Your task to perform on an android device: empty trash in the gmail app Image 0: 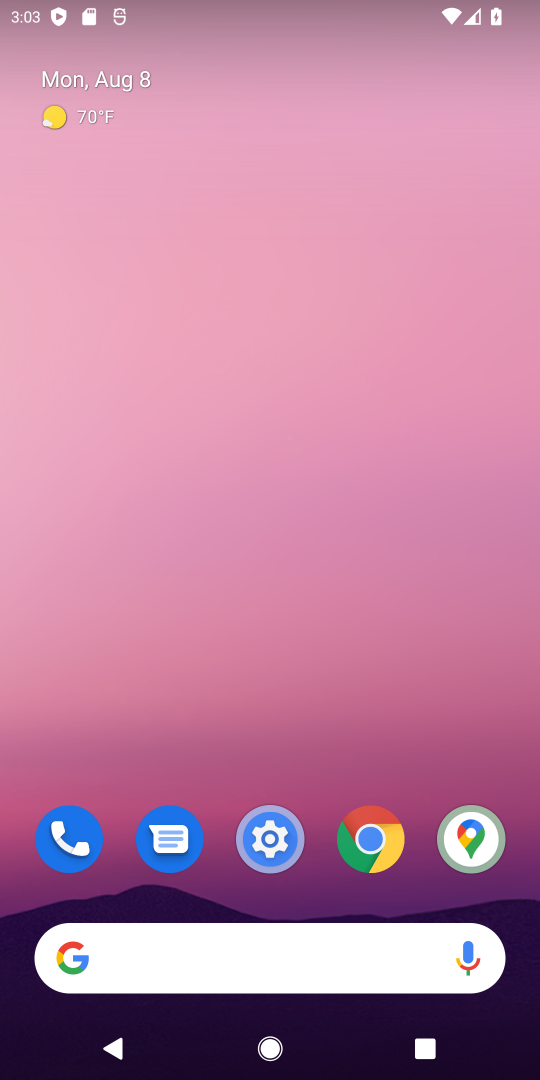
Step 0: press home button
Your task to perform on an android device: empty trash in the gmail app Image 1: 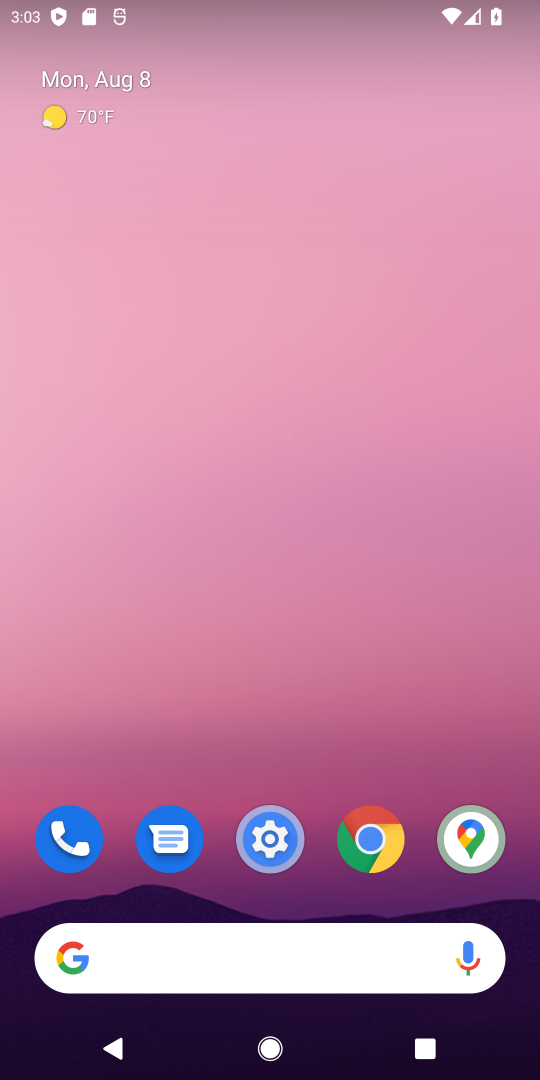
Step 1: drag from (392, 602) to (425, 167)
Your task to perform on an android device: empty trash in the gmail app Image 2: 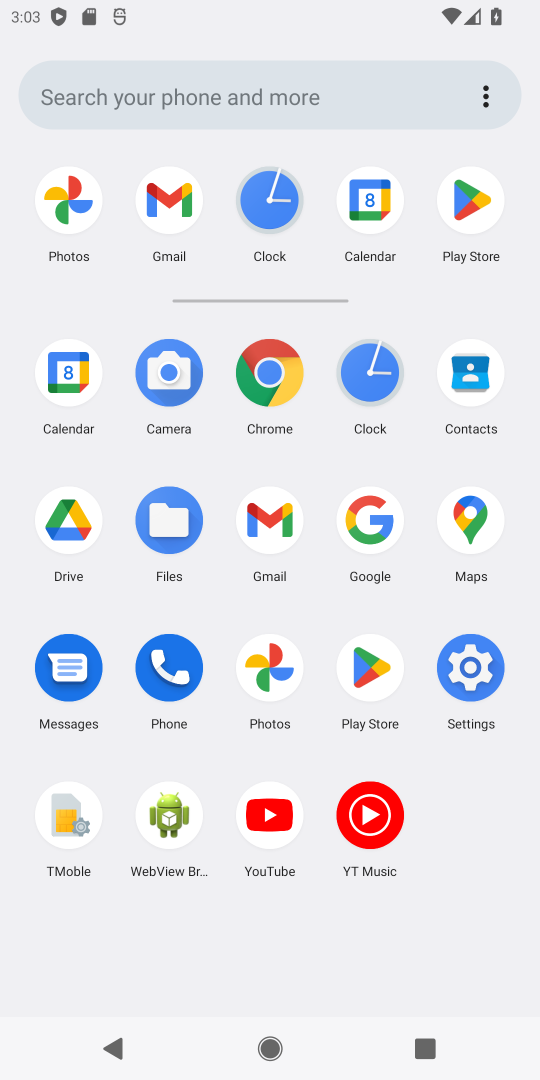
Step 2: click (259, 527)
Your task to perform on an android device: empty trash in the gmail app Image 3: 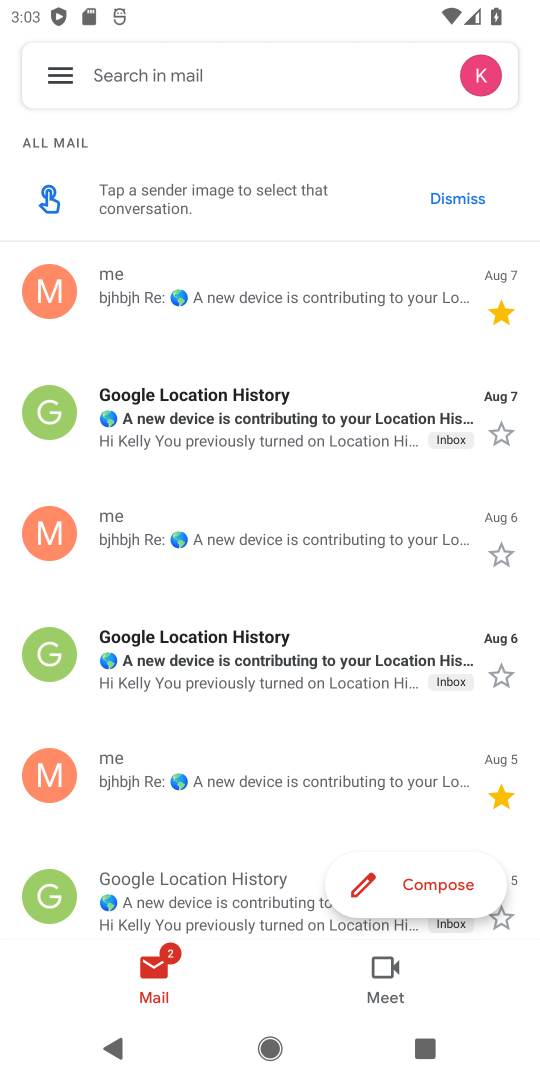
Step 3: click (59, 69)
Your task to perform on an android device: empty trash in the gmail app Image 4: 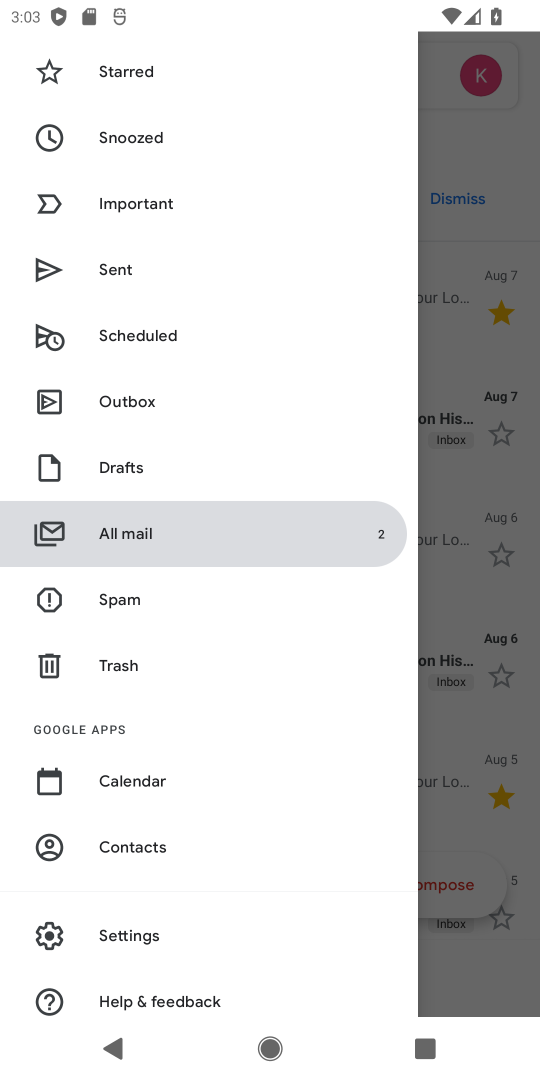
Step 4: drag from (269, 229) to (284, 429)
Your task to perform on an android device: empty trash in the gmail app Image 5: 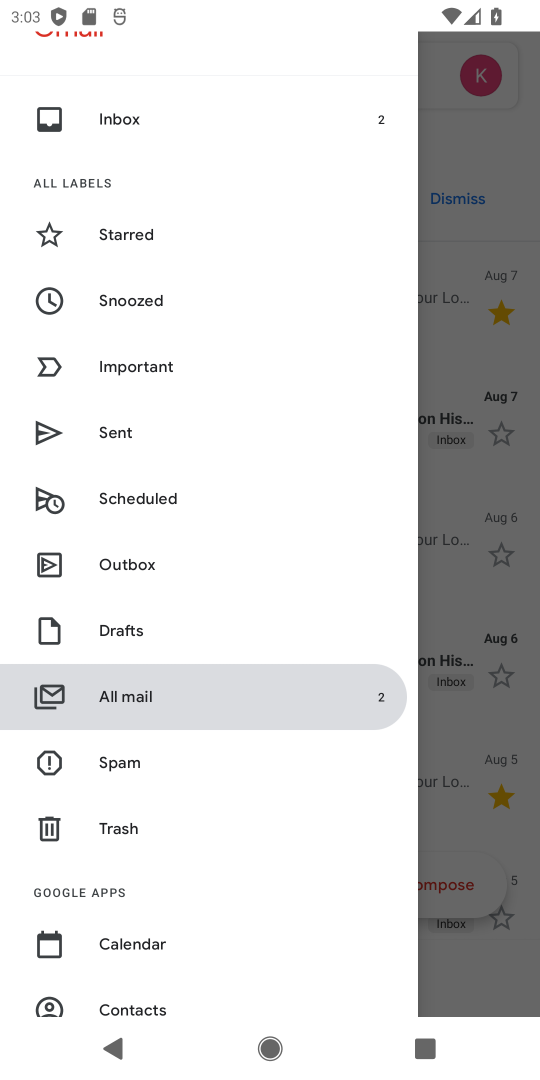
Step 5: drag from (313, 143) to (309, 445)
Your task to perform on an android device: empty trash in the gmail app Image 6: 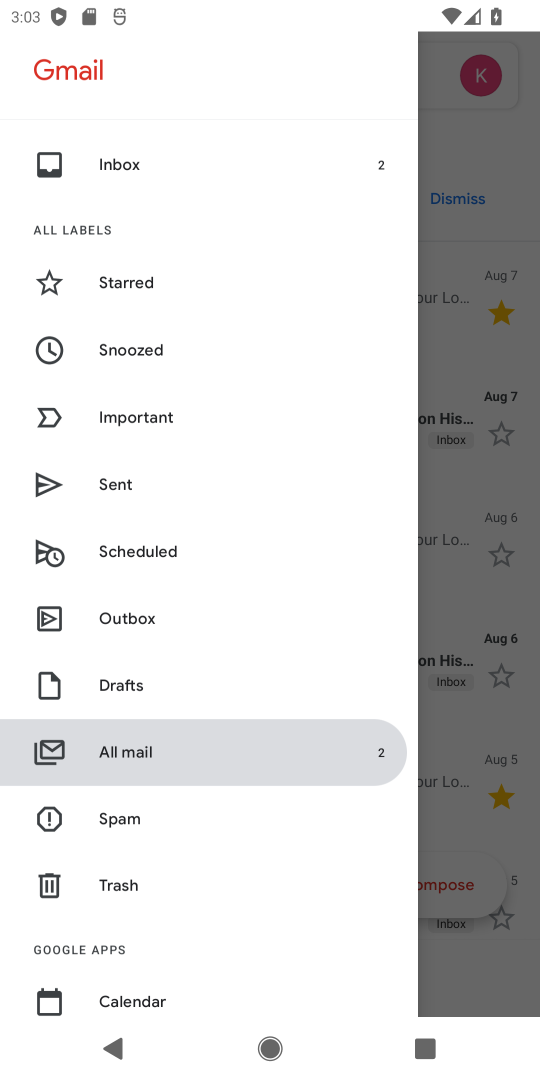
Step 6: drag from (313, 459) to (328, 304)
Your task to perform on an android device: empty trash in the gmail app Image 7: 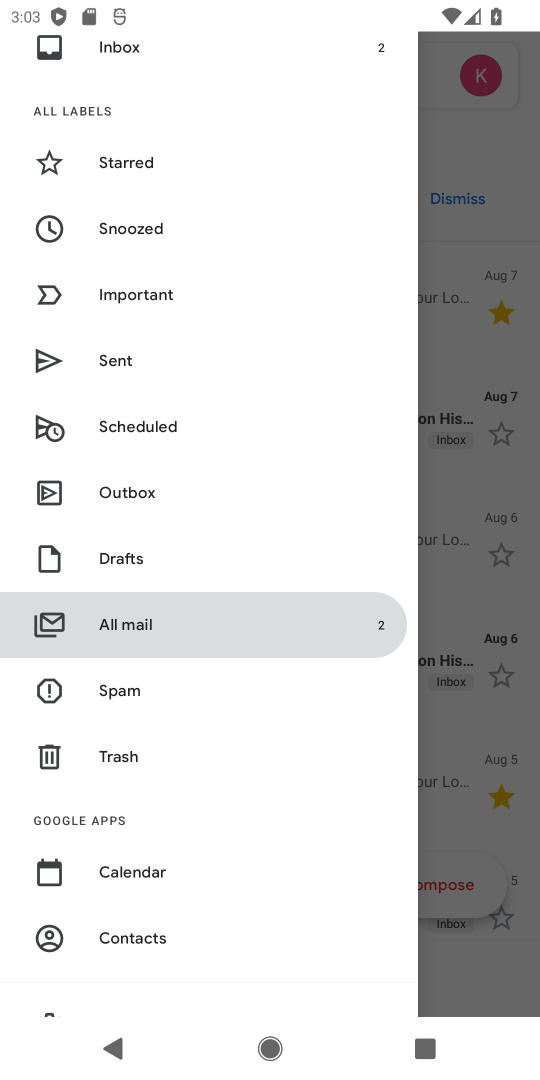
Step 7: drag from (328, 454) to (325, 228)
Your task to perform on an android device: empty trash in the gmail app Image 8: 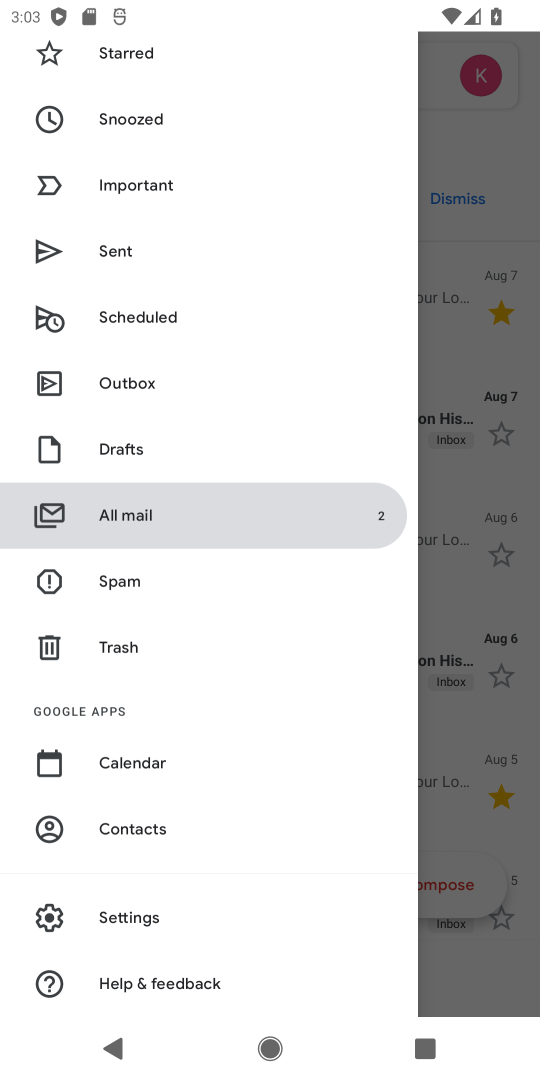
Step 8: drag from (295, 522) to (302, 265)
Your task to perform on an android device: empty trash in the gmail app Image 9: 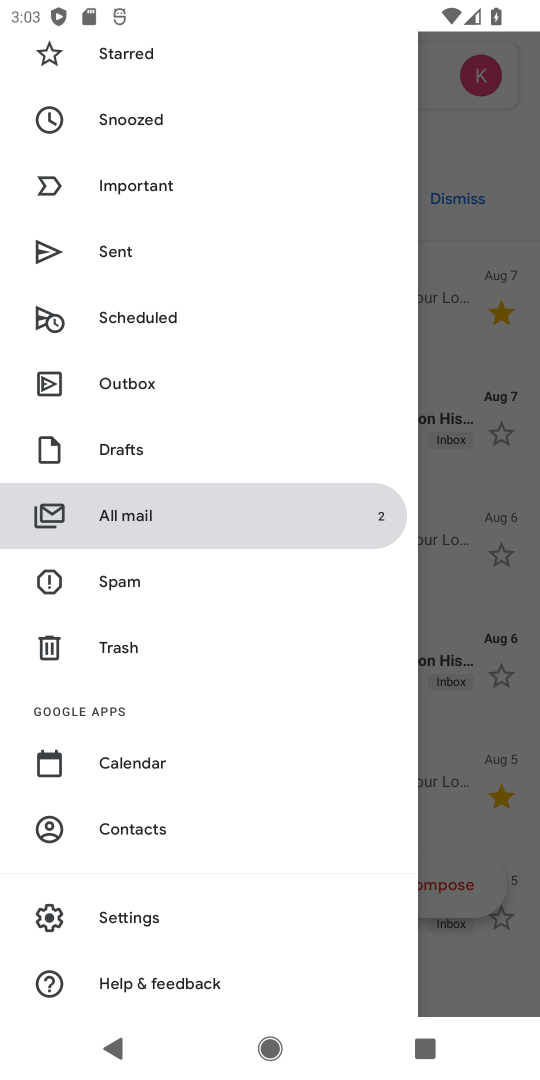
Step 9: click (230, 652)
Your task to perform on an android device: empty trash in the gmail app Image 10: 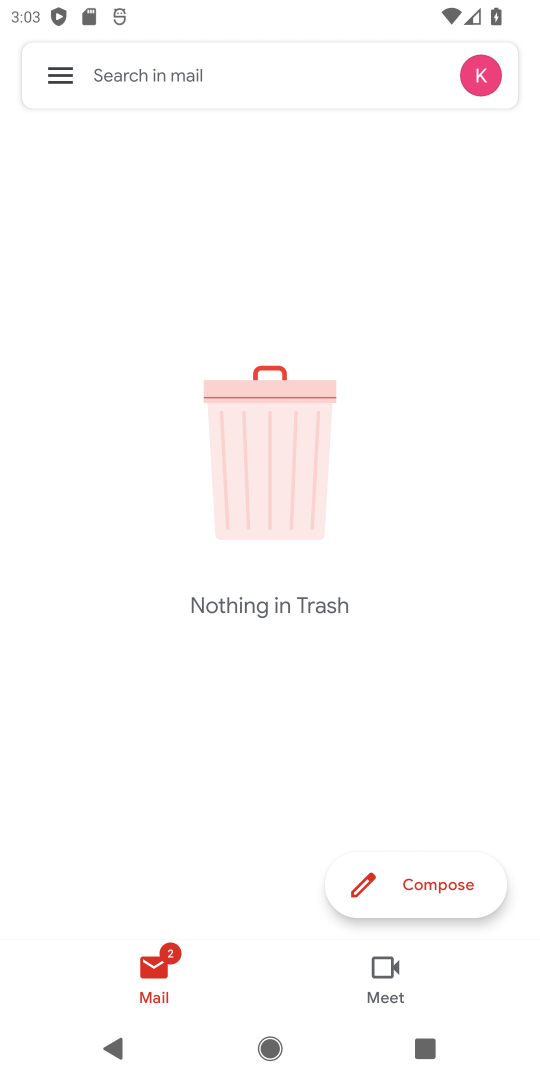
Step 10: task complete